Your task to perform on an android device: check storage Image 0: 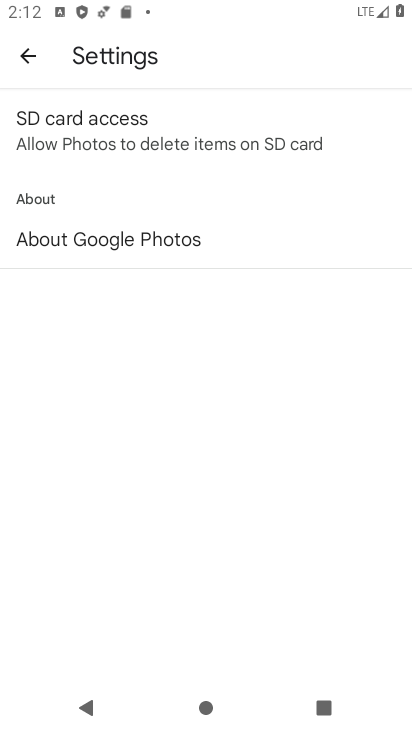
Step 0: press home button
Your task to perform on an android device: check storage Image 1: 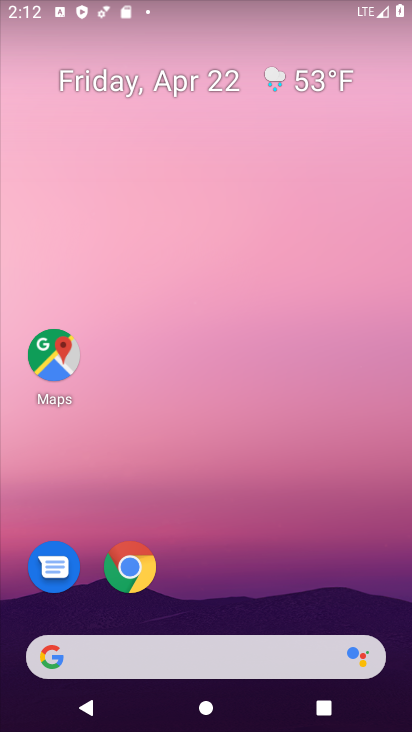
Step 1: drag from (368, 602) to (273, 267)
Your task to perform on an android device: check storage Image 2: 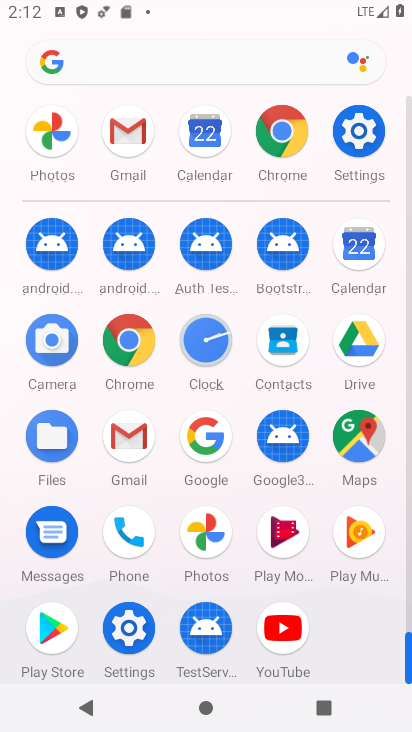
Step 2: click (126, 625)
Your task to perform on an android device: check storage Image 3: 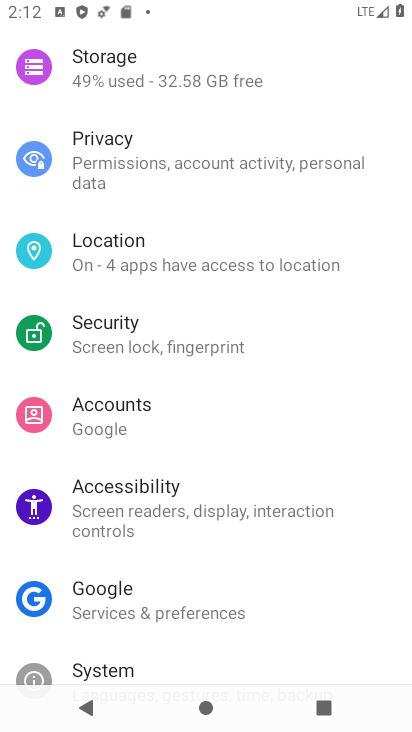
Step 3: drag from (212, 222) to (238, 460)
Your task to perform on an android device: check storage Image 4: 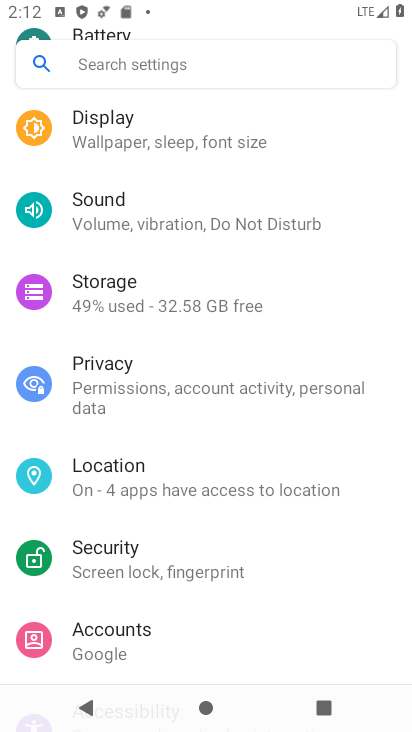
Step 4: click (135, 296)
Your task to perform on an android device: check storage Image 5: 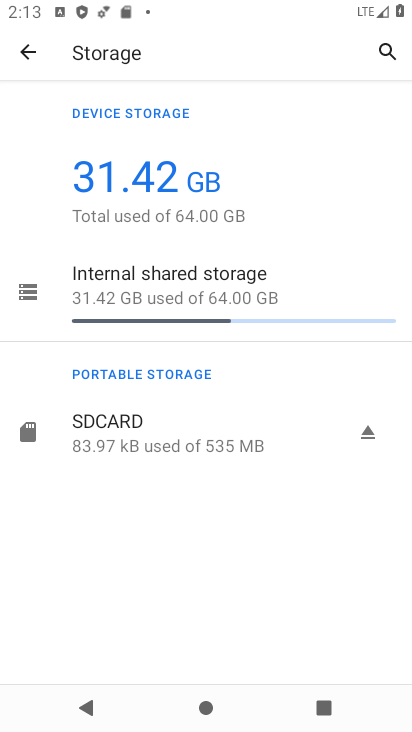
Step 5: task complete